Your task to perform on an android device: check google app version Image 0: 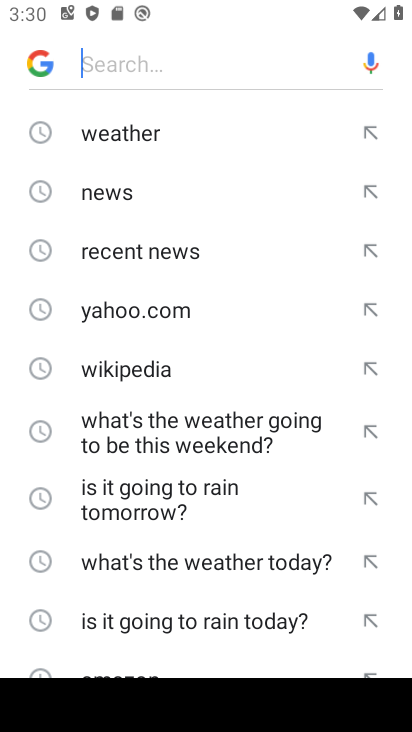
Step 0: press back button
Your task to perform on an android device: check google app version Image 1: 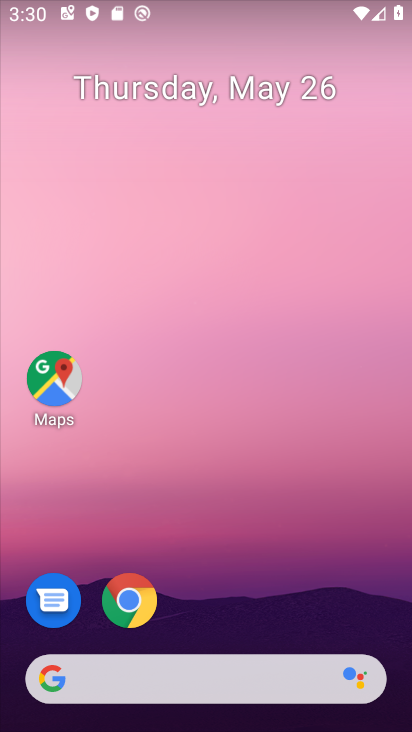
Step 1: drag from (235, 559) to (188, 34)
Your task to perform on an android device: check google app version Image 2: 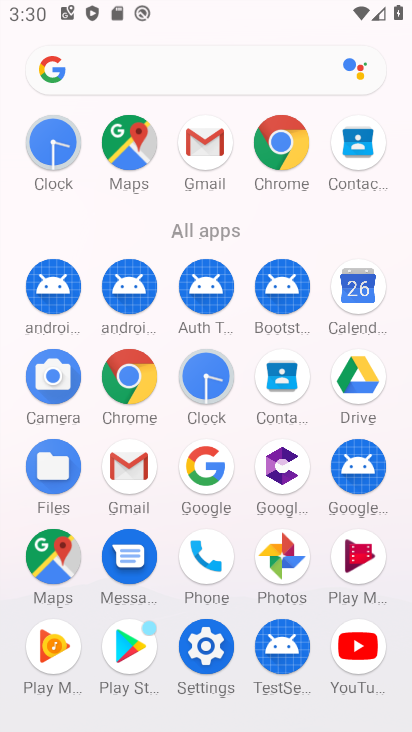
Step 2: click (206, 463)
Your task to perform on an android device: check google app version Image 3: 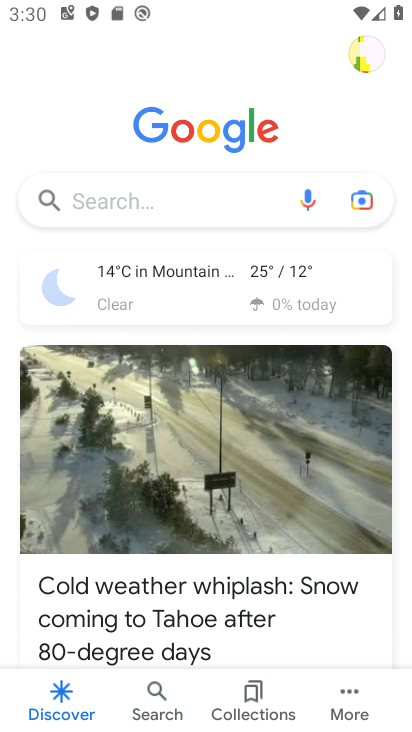
Step 3: click (351, 690)
Your task to perform on an android device: check google app version Image 4: 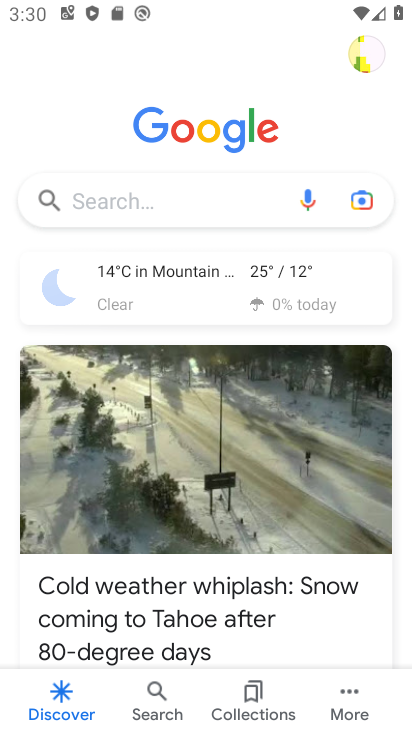
Step 4: click (351, 683)
Your task to perform on an android device: check google app version Image 5: 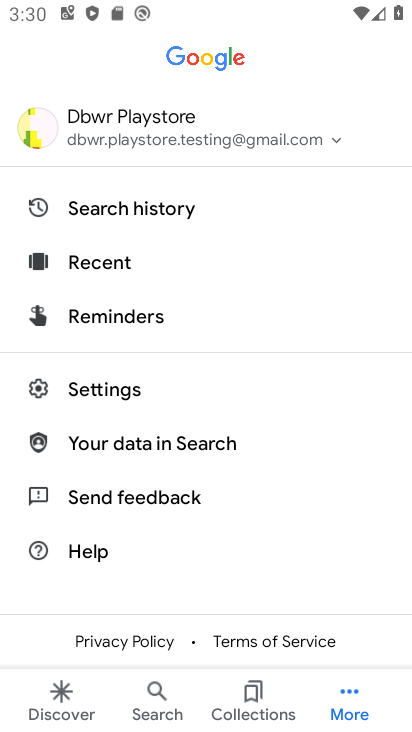
Step 5: click (111, 382)
Your task to perform on an android device: check google app version Image 6: 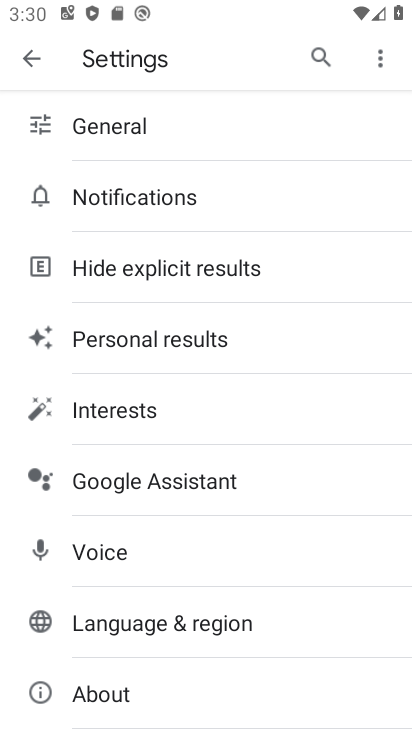
Step 6: click (162, 679)
Your task to perform on an android device: check google app version Image 7: 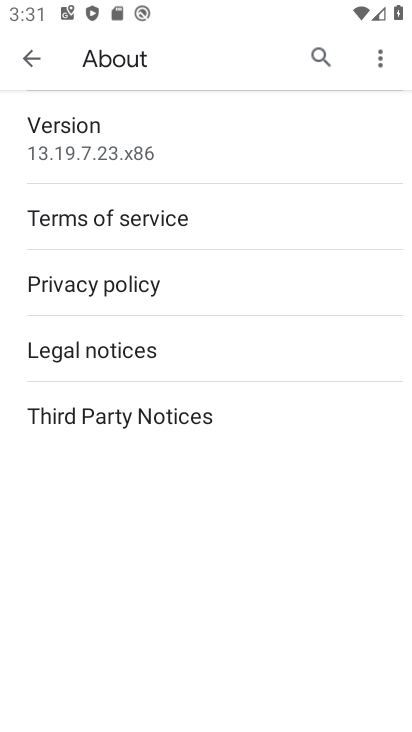
Step 7: task complete